Your task to perform on an android device: open the mobile data screen to see how much data has been used Image 0: 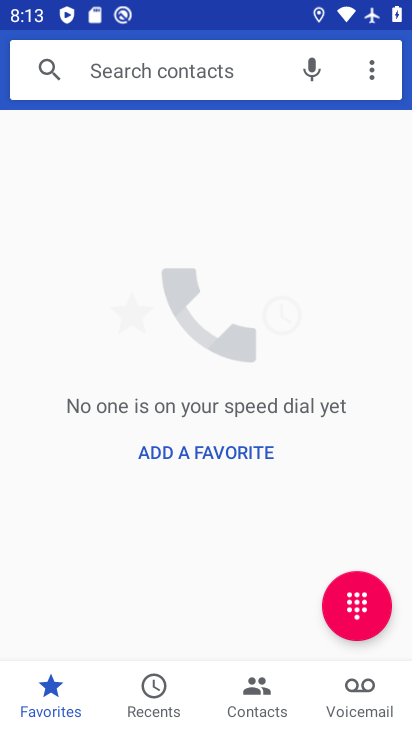
Step 0: press home button
Your task to perform on an android device: open the mobile data screen to see how much data has been used Image 1: 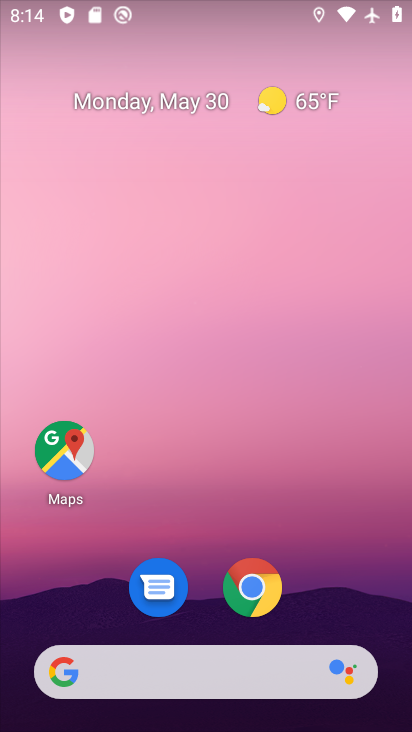
Step 1: drag from (185, 681) to (282, 44)
Your task to perform on an android device: open the mobile data screen to see how much data has been used Image 2: 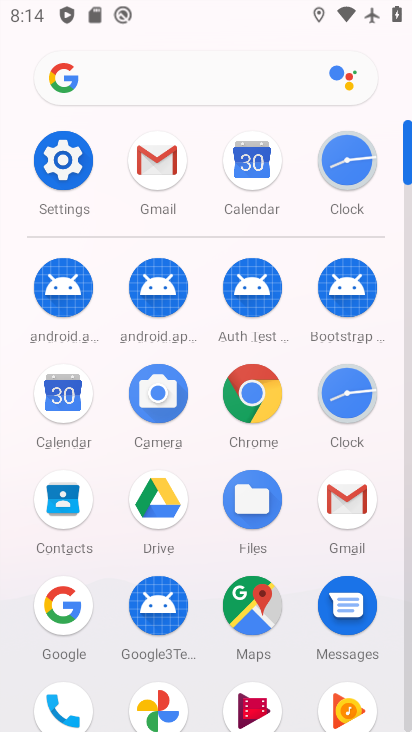
Step 2: click (65, 163)
Your task to perform on an android device: open the mobile data screen to see how much data has been used Image 3: 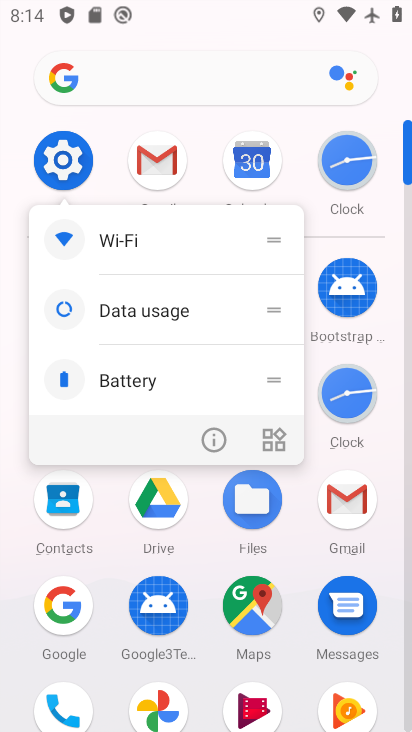
Step 3: click (61, 164)
Your task to perform on an android device: open the mobile data screen to see how much data has been used Image 4: 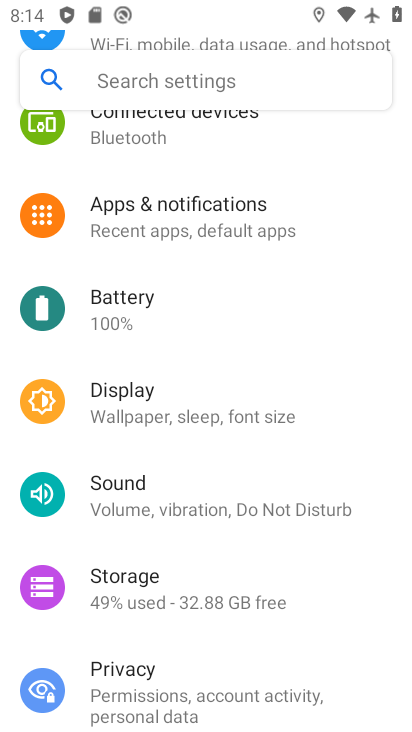
Step 4: drag from (298, 149) to (208, 642)
Your task to perform on an android device: open the mobile data screen to see how much data has been used Image 5: 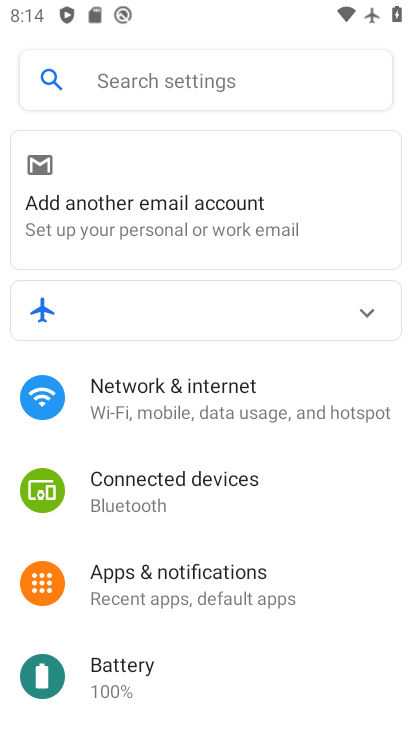
Step 5: click (192, 378)
Your task to perform on an android device: open the mobile data screen to see how much data has been used Image 6: 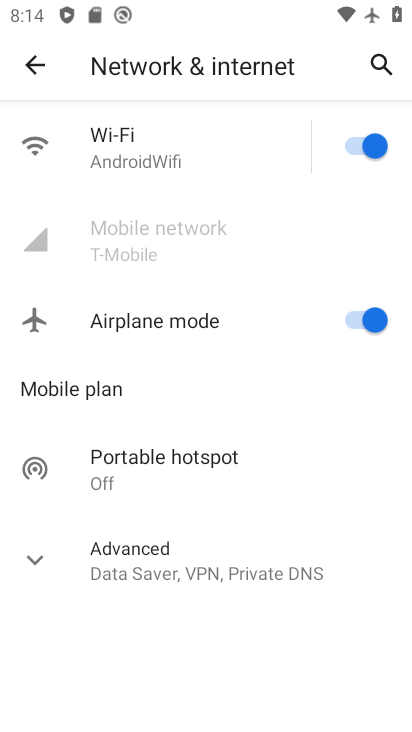
Step 6: task complete